Your task to perform on an android device: Play the last video I watched on Youtube Image 0: 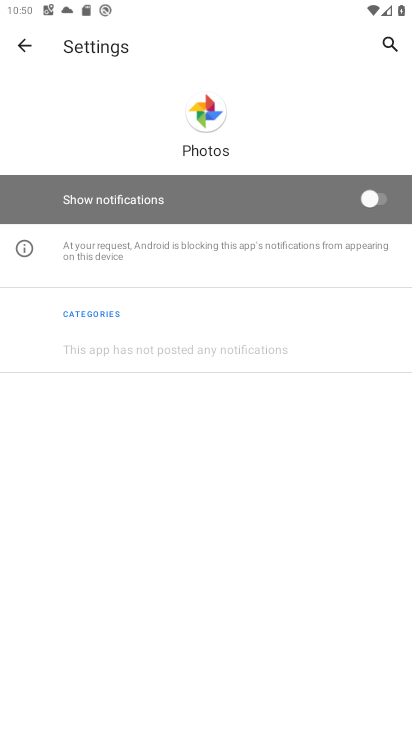
Step 0: press home button
Your task to perform on an android device: Play the last video I watched on Youtube Image 1: 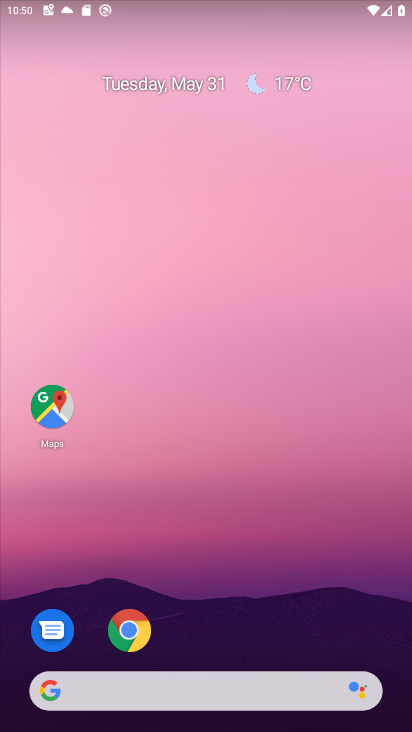
Step 1: drag from (222, 618) to (204, 202)
Your task to perform on an android device: Play the last video I watched on Youtube Image 2: 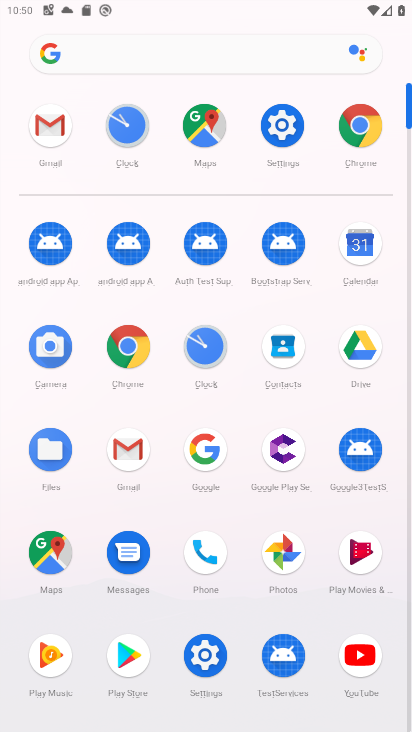
Step 2: click (362, 647)
Your task to perform on an android device: Play the last video I watched on Youtube Image 3: 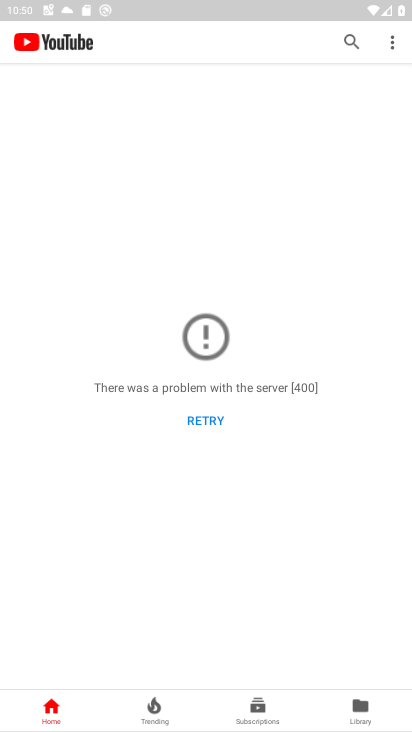
Step 3: click (211, 422)
Your task to perform on an android device: Play the last video I watched on Youtube Image 4: 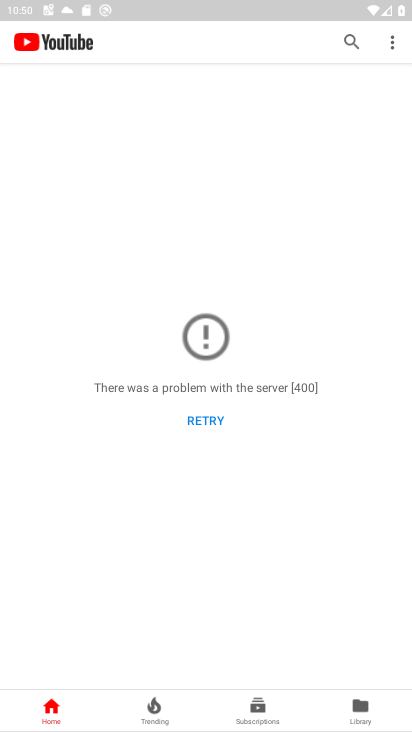
Step 4: task complete